Your task to perform on an android device: turn off picture-in-picture Image 0: 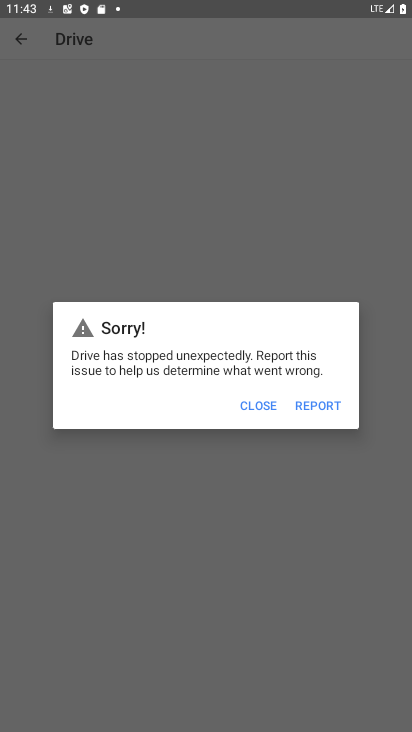
Step 0: press home button
Your task to perform on an android device: turn off picture-in-picture Image 1: 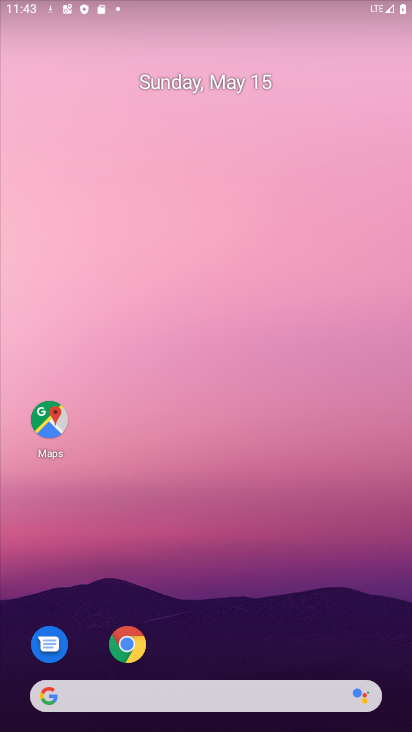
Step 1: drag from (234, 711) to (163, 149)
Your task to perform on an android device: turn off picture-in-picture Image 2: 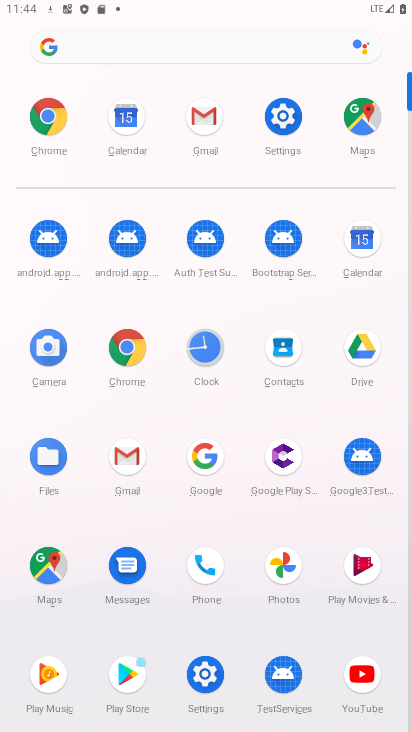
Step 2: click (291, 134)
Your task to perform on an android device: turn off picture-in-picture Image 3: 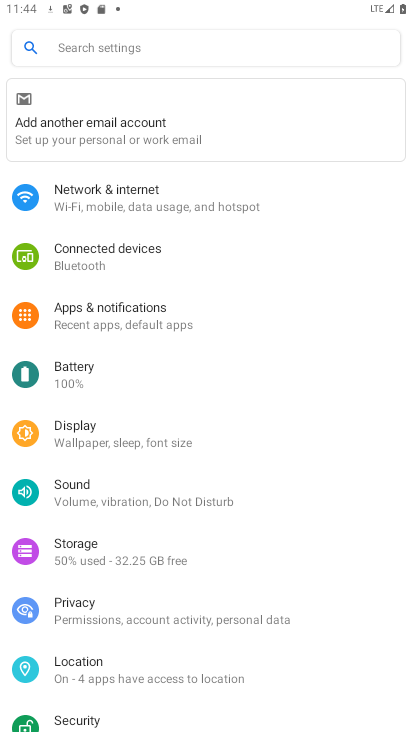
Step 3: click (123, 57)
Your task to perform on an android device: turn off picture-in-picture Image 4: 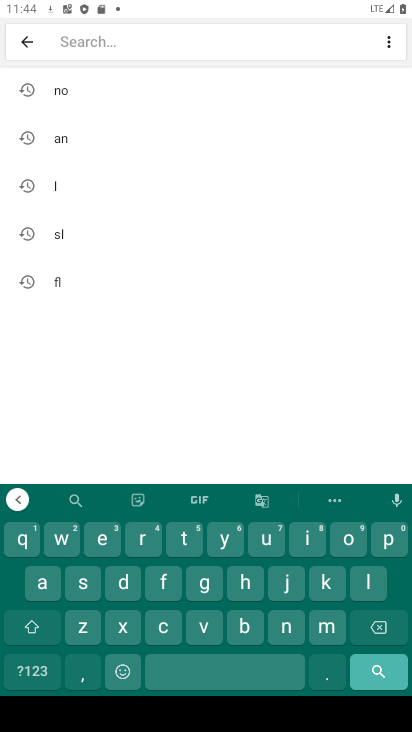
Step 4: click (380, 542)
Your task to perform on an android device: turn off picture-in-picture Image 5: 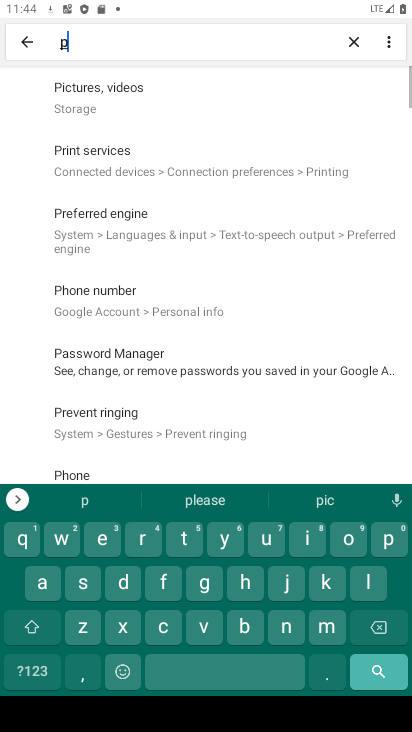
Step 5: click (309, 539)
Your task to perform on an android device: turn off picture-in-picture Image 6: 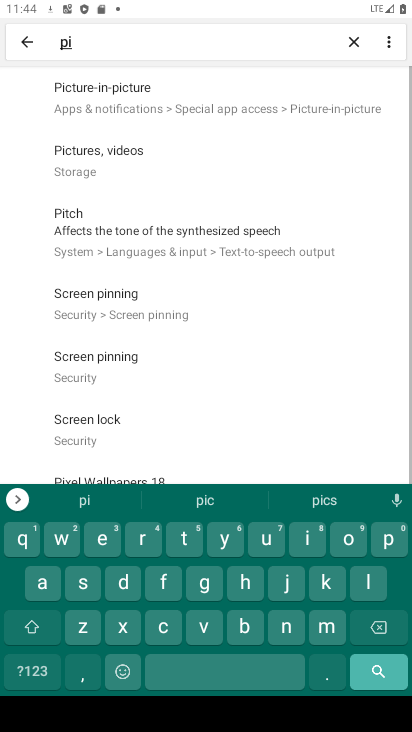
Step 6: click (162, 626)
Your task to perform on an android device: turn off picture-in-picture Image 7: 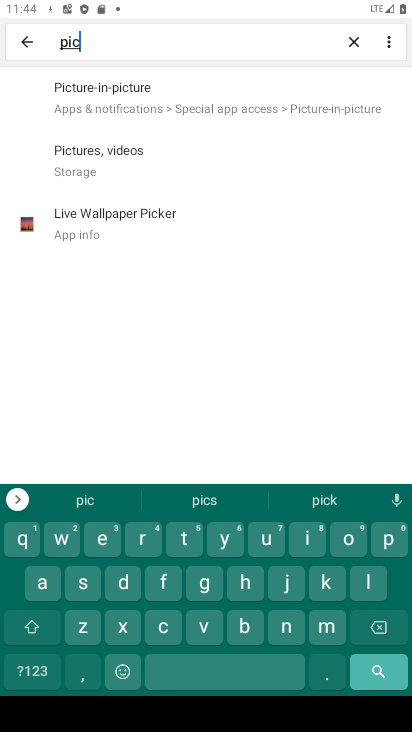
Step 7: click (142, 94)
Your task to perform on an android device: turn off picture-in-picture Image 8: 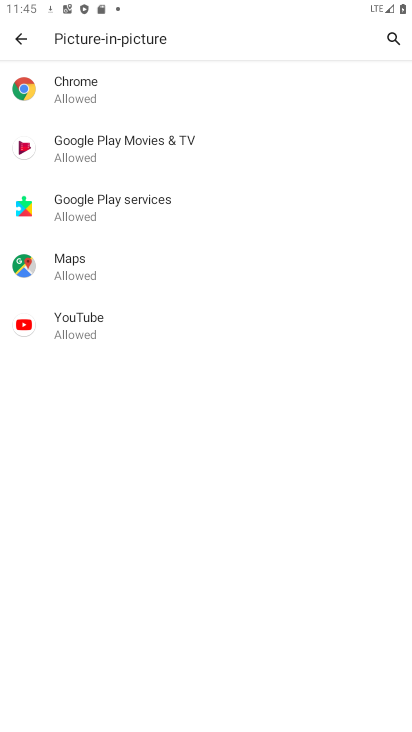
Step 8: task complete